Your task to perform on an android device: turn on the 24-hour format for clock Image 0: 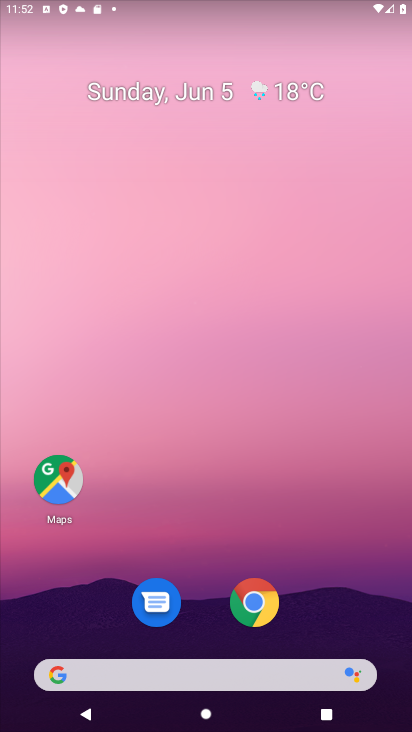
Step 0: task complete